Your task to perform on an android device: What's the weather going to be tomorrow? Image 0: 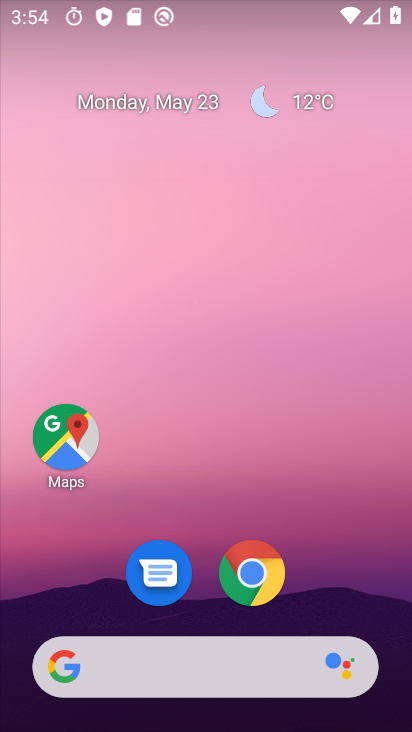
Step 0: press home button
Your task to perform on an android device: What's the weather going to be tomorrow? Image 1: 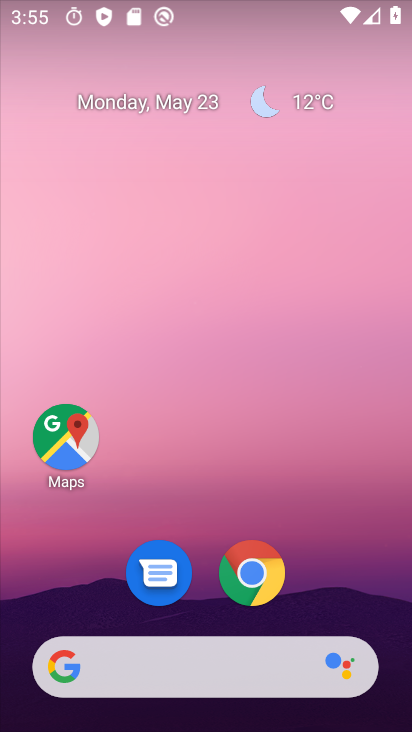
Step 1: click (147, 667)
Your task to perform on an android device: What's the weather going to be tomorrow? Image 2: 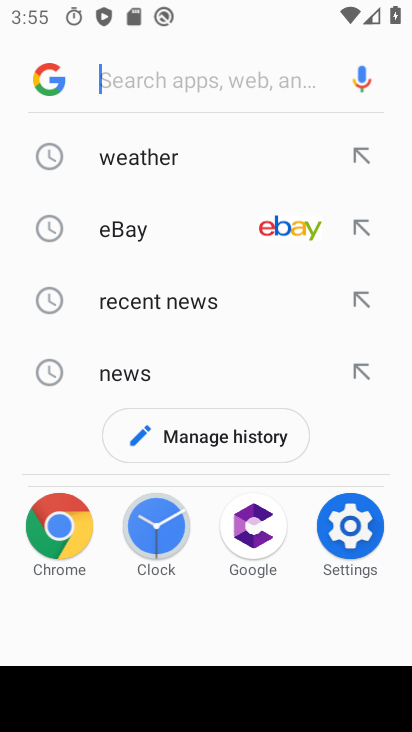
Step 2: click (115, 153)
Your task to perform on an android device: What's the weather going to be tomorrow? Image 3: 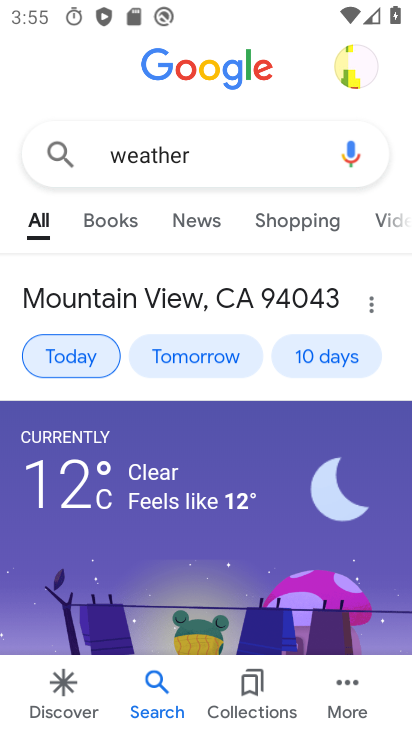
Step 3: task complete